Your task to perform on an android device: open wifi settings Image 0: 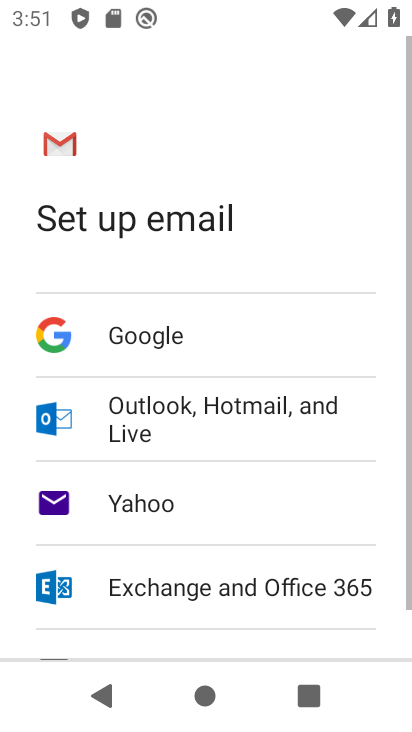
Step 0: press home button
Your task to perform on an android device: open wifi settings Image 1: 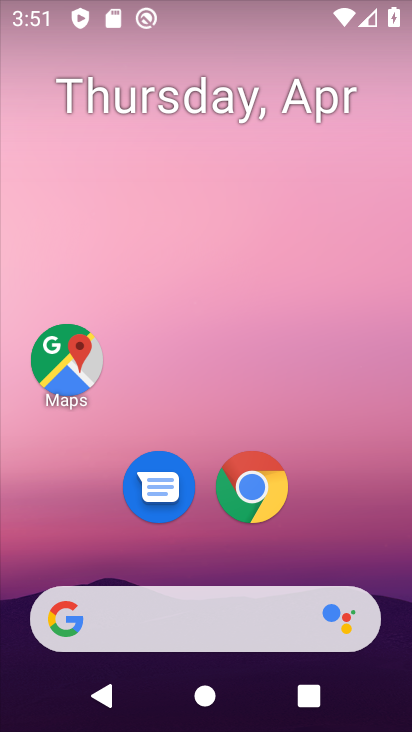
Step 1: drag from (211, 570) to (196, 125)
Your task to perform on an android device: open wifi settings Image 2: 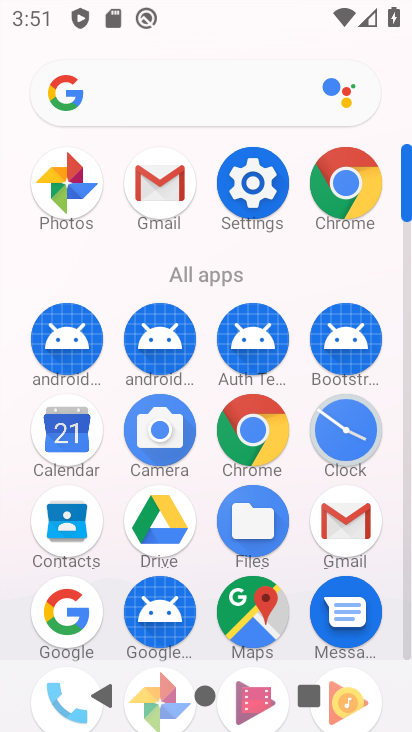
Step 2: click (240, 171)
Your task to perform on an android device: open wifi settings Image 3: 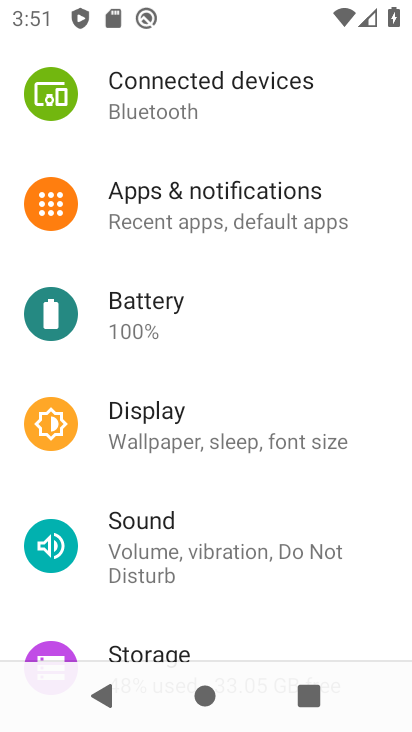
Step 3: drag from (214, 150) to (224, 503)
Your task to perform on an android device: open wifi settings Image 4: 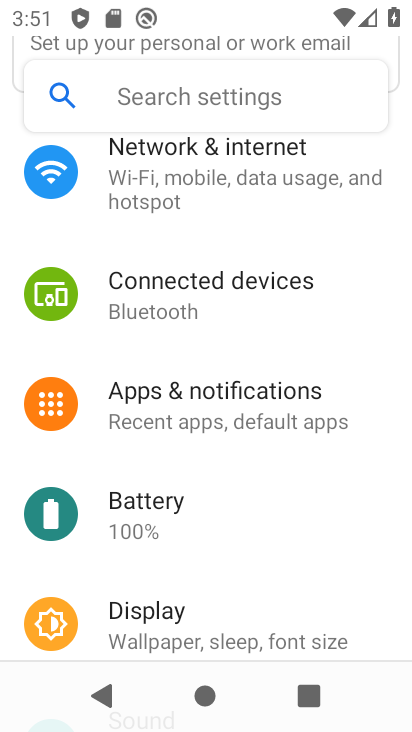
Step 4: drag from (197, 216) to (218, 549)
Your task to perform on an android device: open wifi settings Image 5: 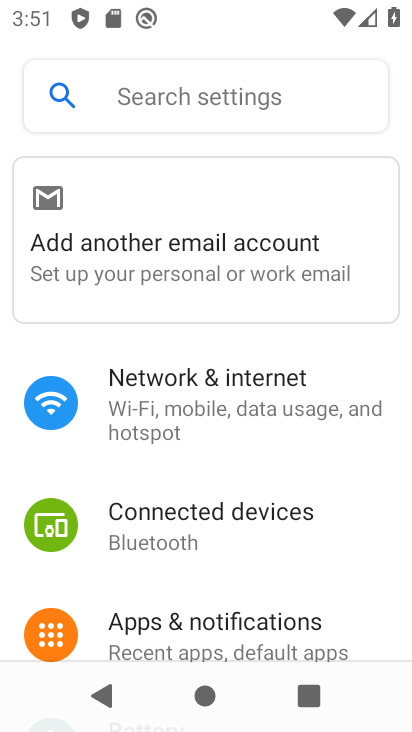
Step 5: click (188, 407)
Your task to perform on an android device: open wifi settings Image 6: 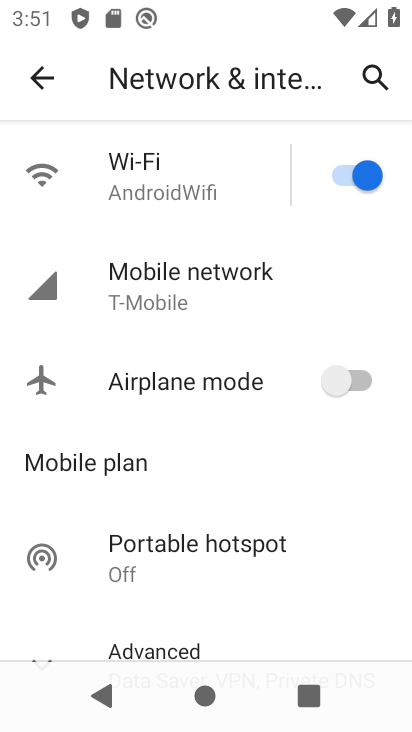
Step 6: click (144, 166)
Your task to perform on an android device: open wifi settings Image 7: 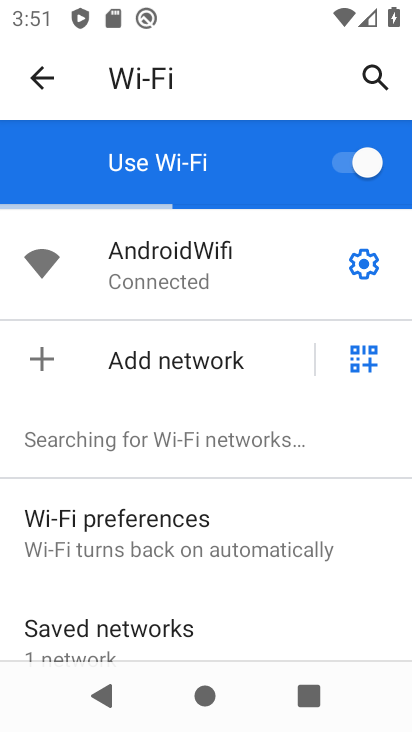
Step 7: task complete